Your task to perform on an android device: turn on notifications settings in the gmail app Image 0: 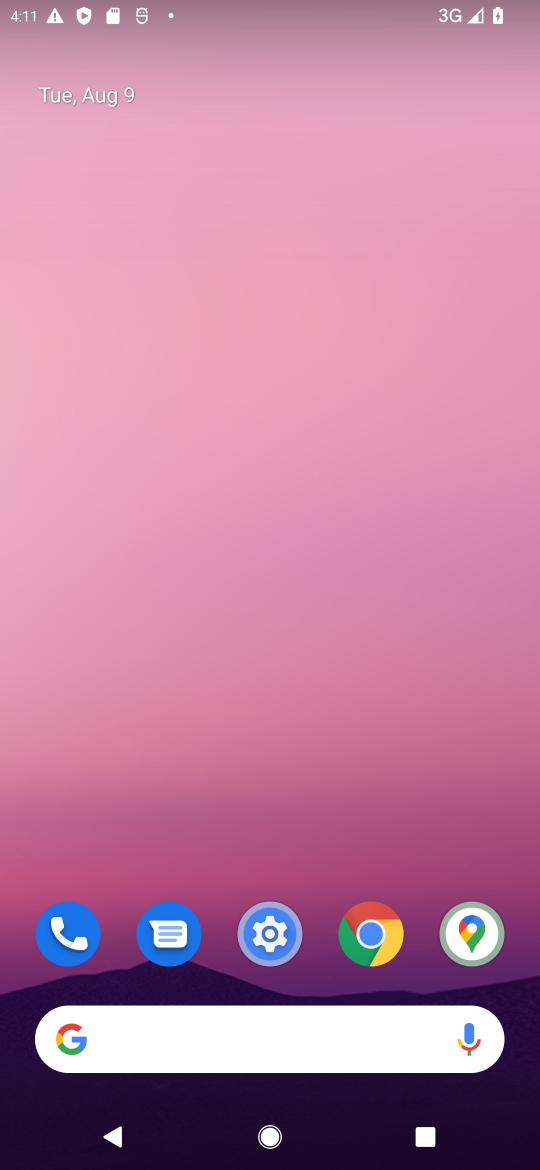
Step 0: click (254, 936)
Your task to perform on an android device: turn on notifications settings in the gmail app Image 1: 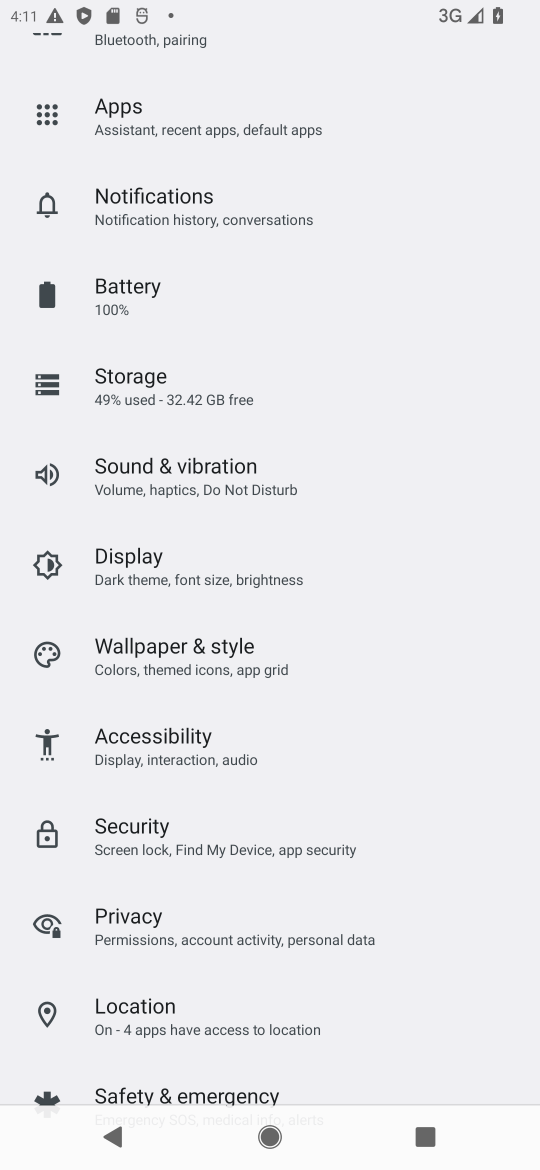
Step 1: click (196, 993)
Your task to perform on an android device: turn on notifications settings in the gmail app Image 2: 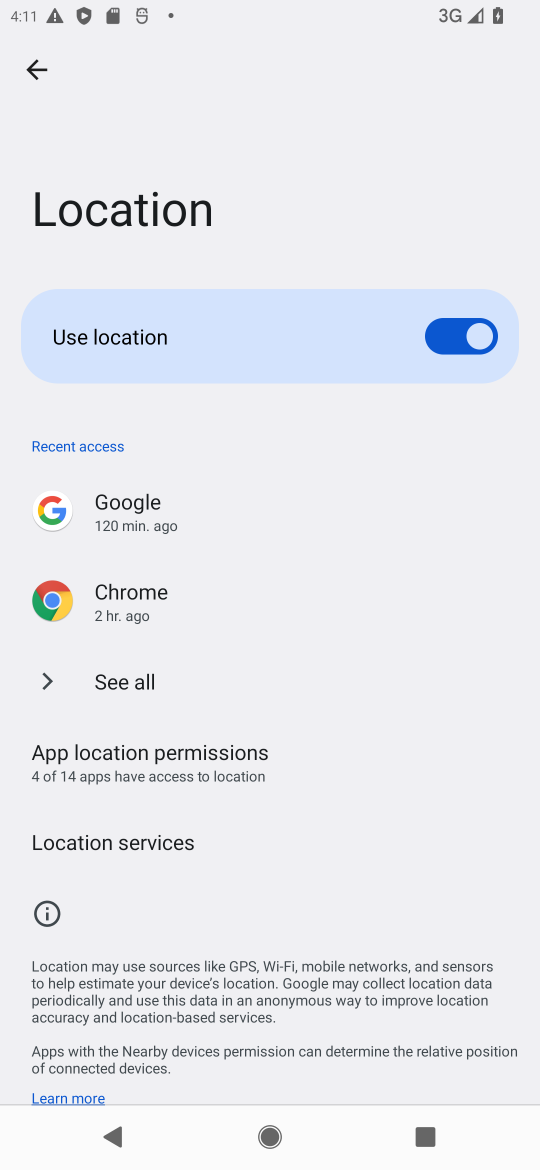
Step 2: task complete